Your task to perform on an android device: turn notification dots on Image 0: 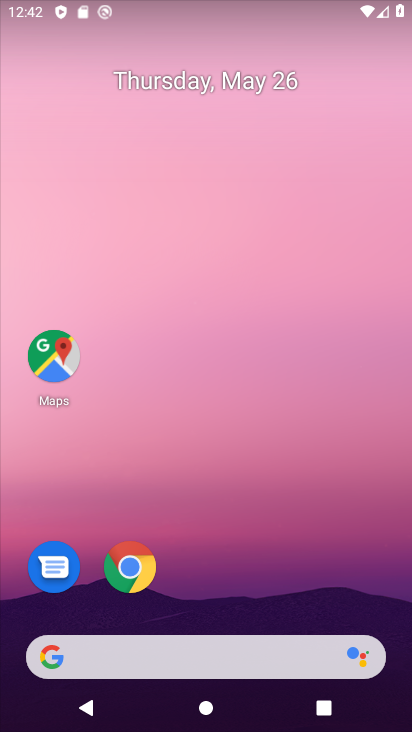
Step 0: drag from (227, 582) to (296, 5)
Your task to perform on an android device: turn notification dots on Image 1: 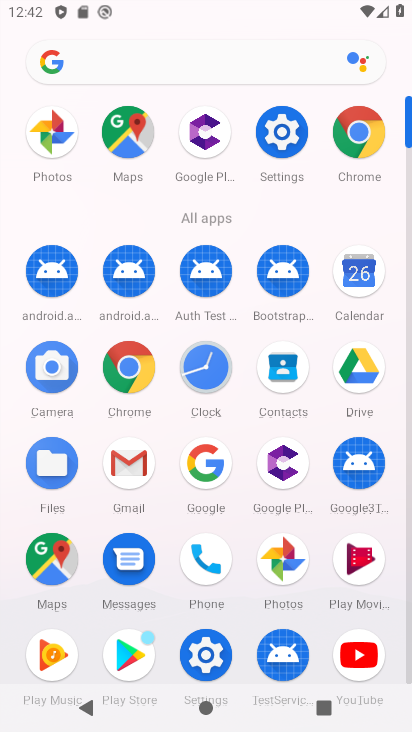
Step 1: click (287, 128)
Your task to perform on an android device: turn notification dots on Image 2: 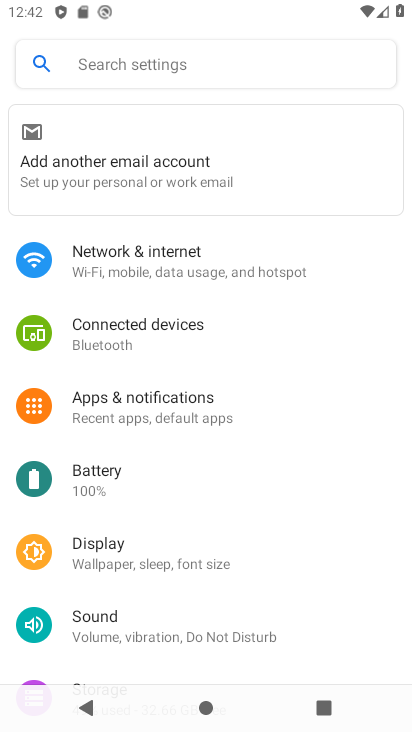
Step 2: click (140, 411)
Your task to perform on an android device: turn notification dots on Image 3: 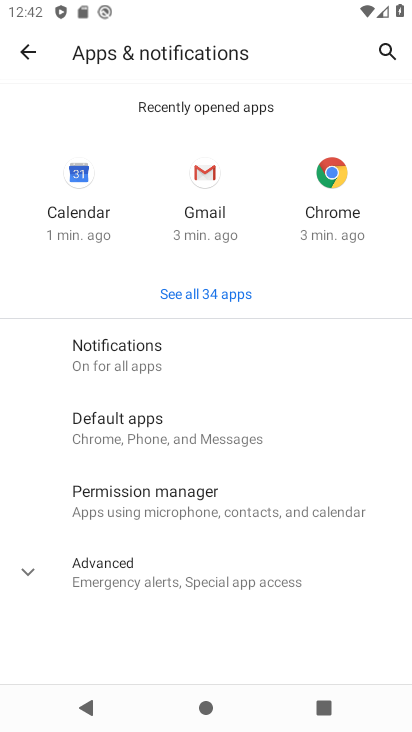
Step 3: click (135, 355)
Your task to perform on an android device: turn notification dots on Image 4: 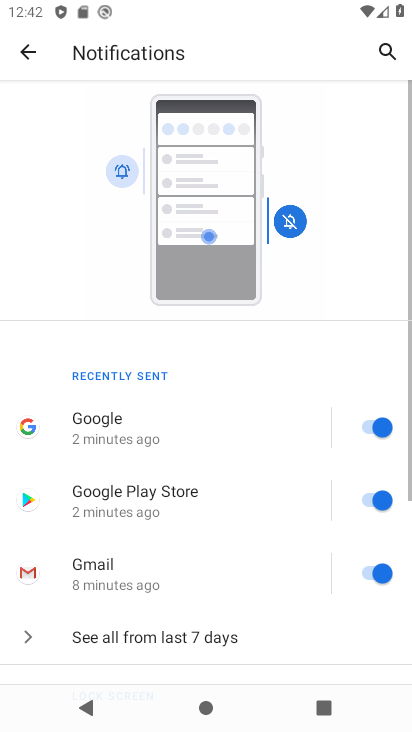
Step 4: drag from (182, 570) to (226, 82)
Your task to perform on an android device: turn notification dots on Image 5: 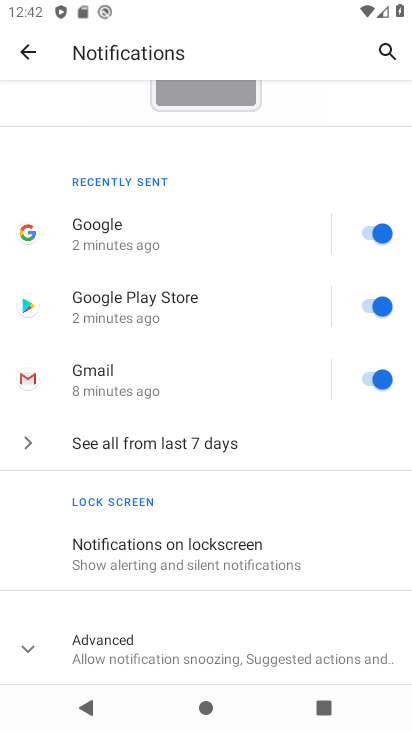
Step 5: click (137, 649)
Your task to perform on an android device: turn notification dots on Image 6: 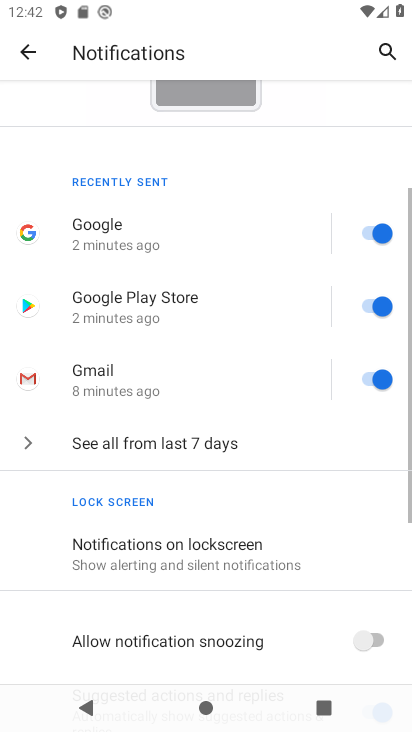
Step 6: task complete